Your task to perform on an android device: create a new album in the google photos Image 0: 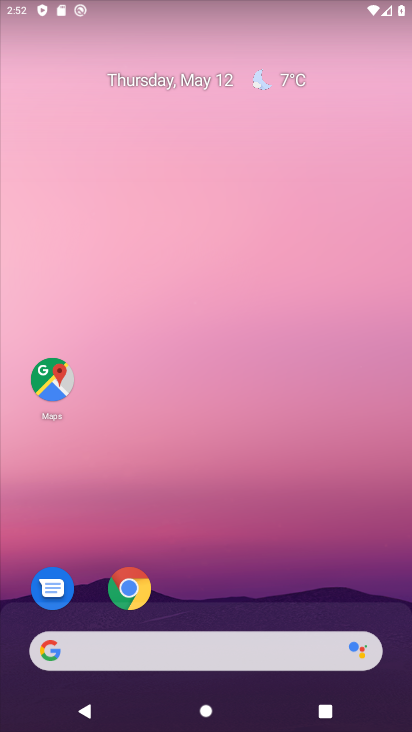
Step 0: drag from (277, 383) to (282, 72)
Your task to perform on an android device: create a new album in the google photos Image 1: 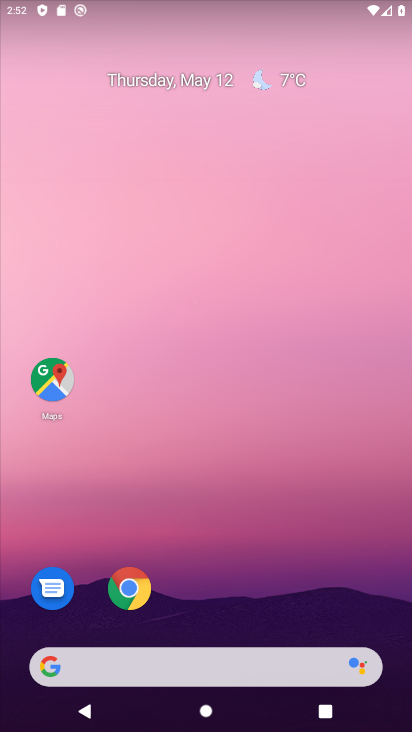
Step 1: drag from (280, 241) to (280, 143)
Your task to perform on an android device: create a new album in the google photos Image 2: 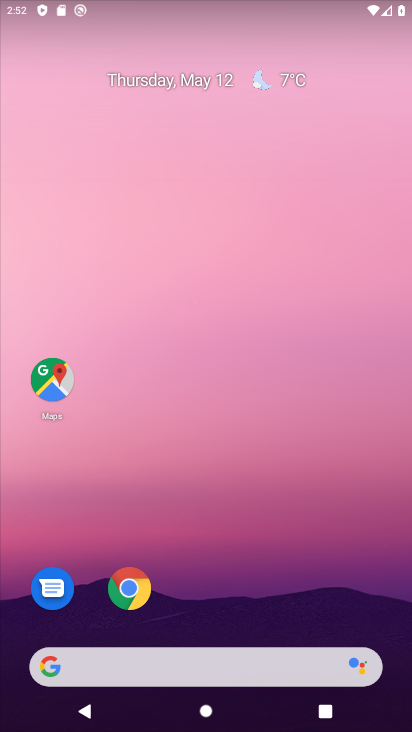
Step 2: drag from (246, 562) to (247, 60)
Your task to perform on an android device: create a new album in the google photos Image 3: 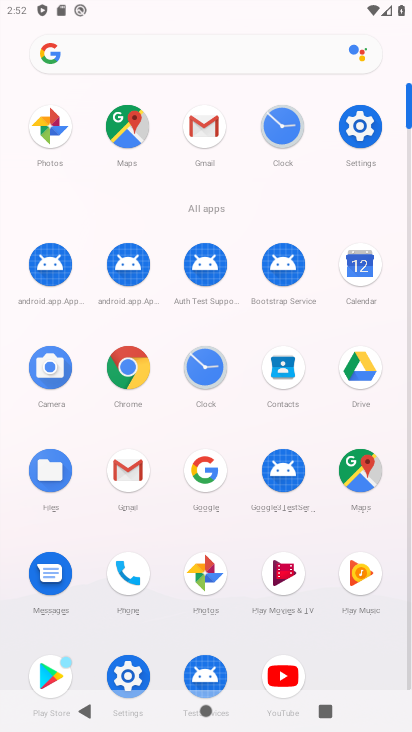
Step 3: click (208, 583)
Your task to perform on an android device: create a new album in the google photos Image 4: 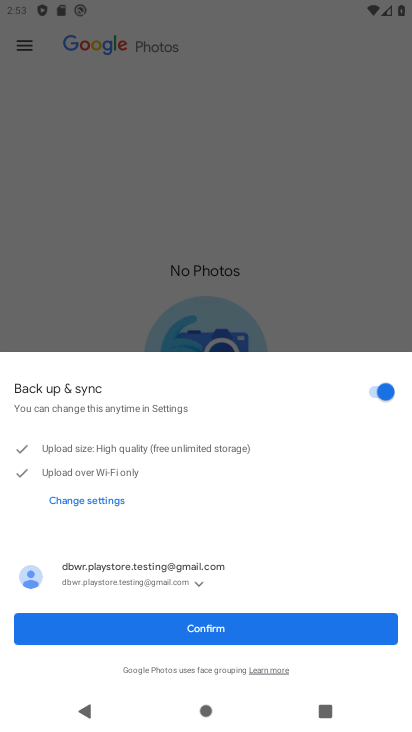
Step 4: click (283, 619)
Your task to perform on an android device: create a new album in the google photos Image 5: 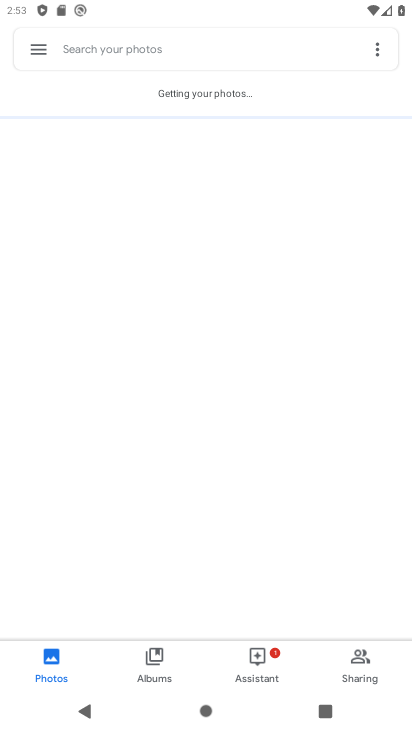
Step 5: click (154, 659)
Your task to perform on an android device: create a new album in the google photos Image 6: 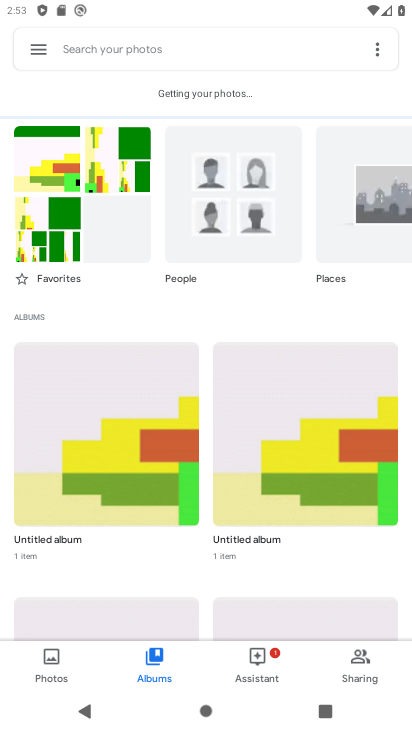
Step 6: click (376, 52)
Your task to perform on an android device: create a new album in the google photos Image 7: 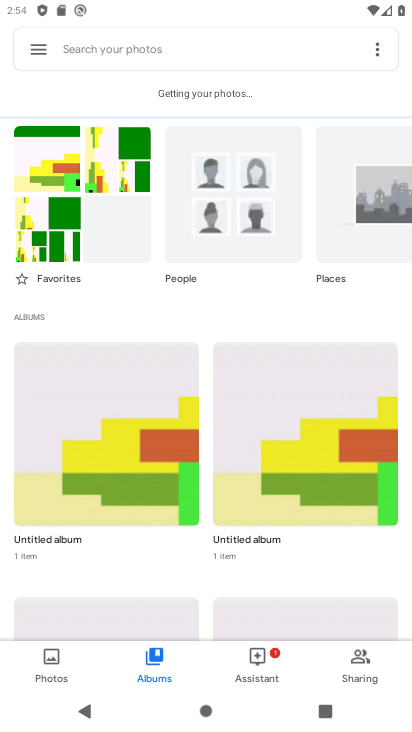
Step 7: drag from (152, 572) to (187, 668)
Your task to perform on an android device: create a new album in the google photos Image 8: 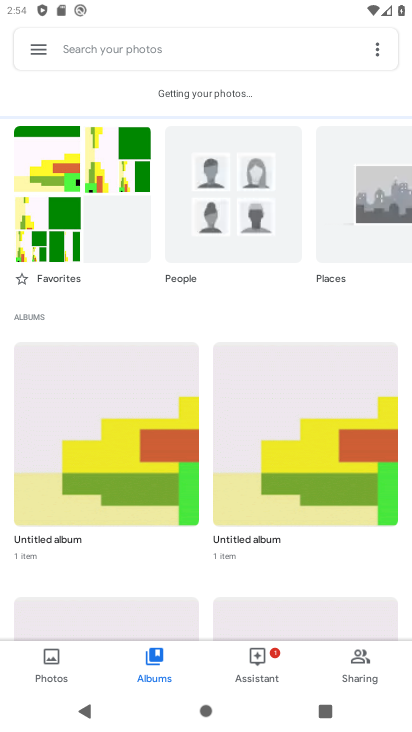
Step 8: drag from (319, 388) to (319, 532)
Your task to perform on an android device: create a new album in the google photos Image 9: 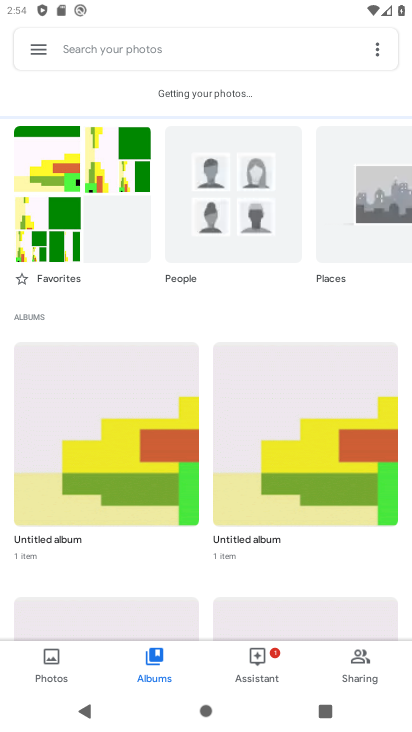
Step 9: click (365, 56)
Your task to perform on an android device: create a new album in the google photos Image 10: 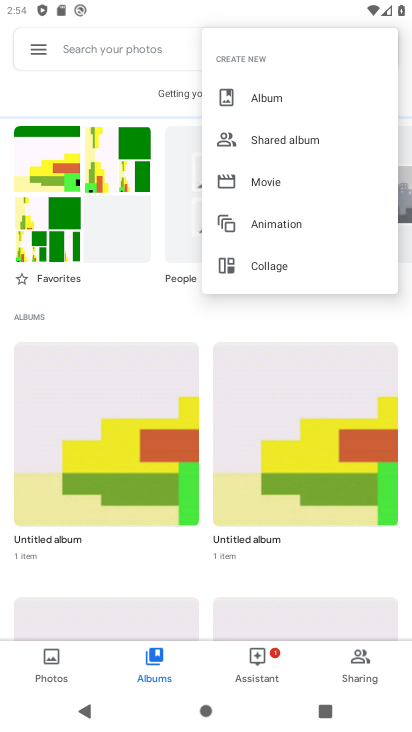
Step 10: click (338, 88)
Your task to perform on an android device: create a new album in the google photos Image 11: 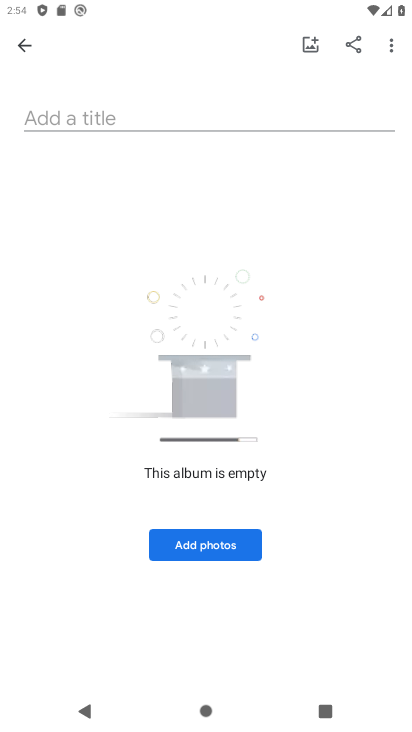
Step 11: click (103, 112)
Your task to perform on an android device: create a new album in the google photos Image 12: 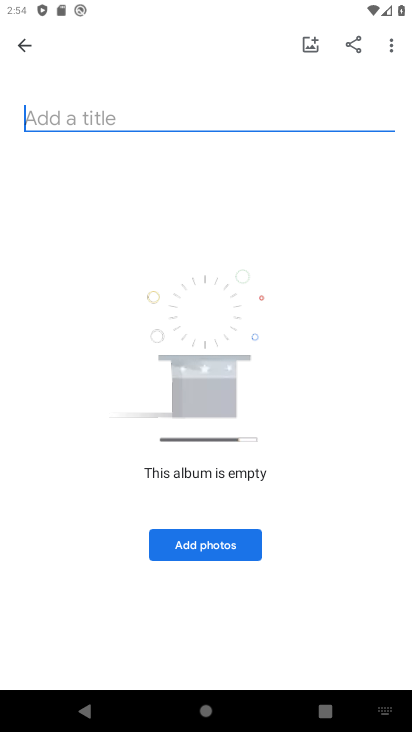
Step 12: type "ggvfgv"
Your task to perform on an android device: create a new album in the google photos Image 13: 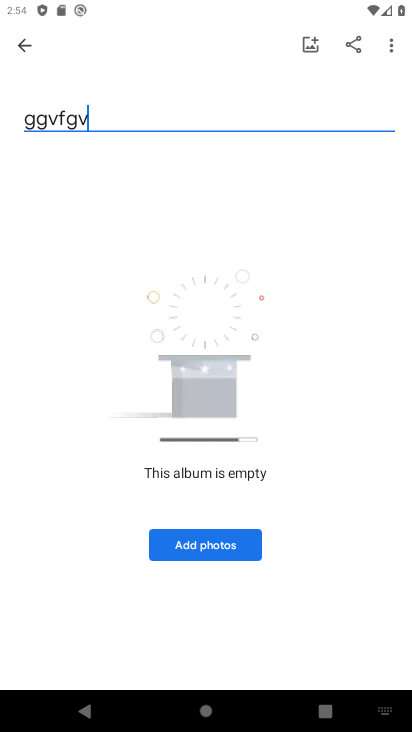
Step 13: click (220, 548)
Your task to perform on an android device: create a new album in the google photos Image 14: 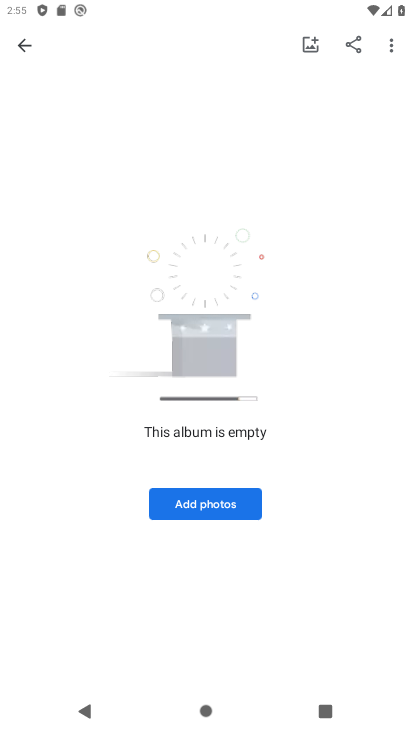
Step 14: click (204, 507)
Your task to perform on an android device: create a new album in the google photos Image 15: 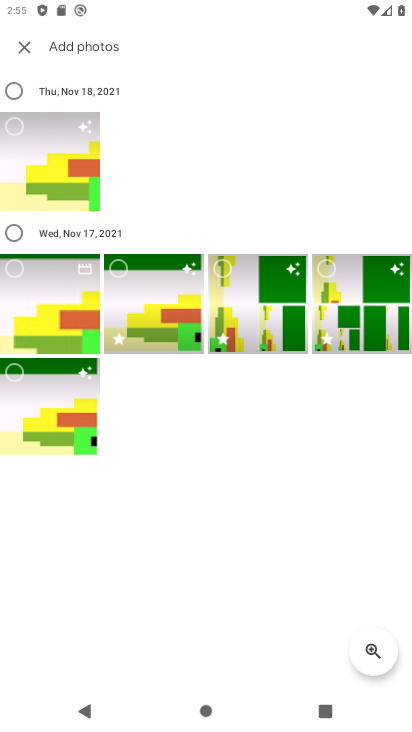
Step 15: click (56, 136)
Your task to perform on an android device: create a new album in the google photos Image 16: 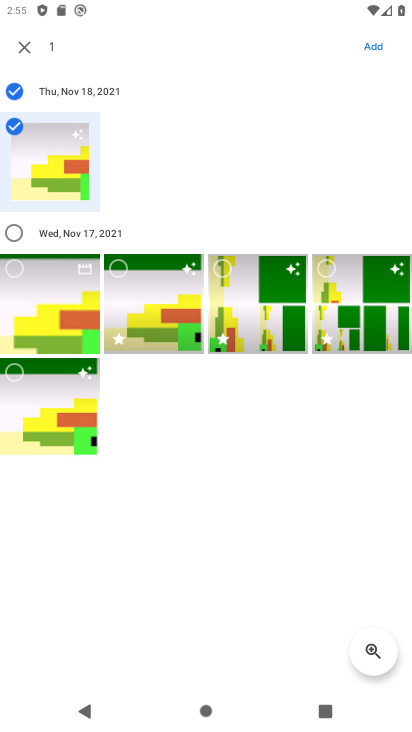
Step 16: click (28, 290)
Your task to perform on an android device: create a new album in the google photos Image 17: 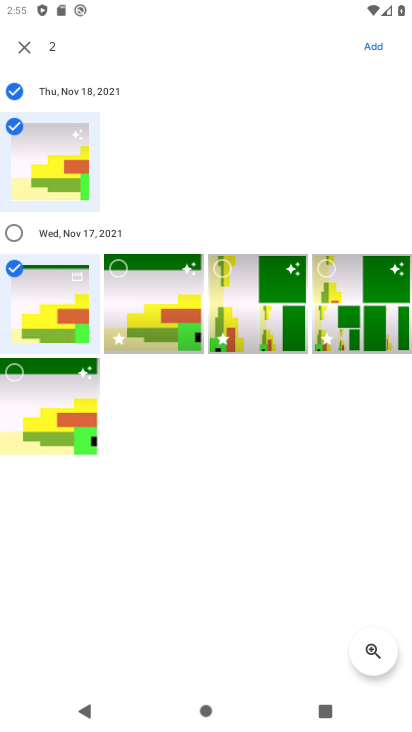
Step 17: click (372, 53)
Your task to perform on an android device: create a new album in the google photos Image 18: 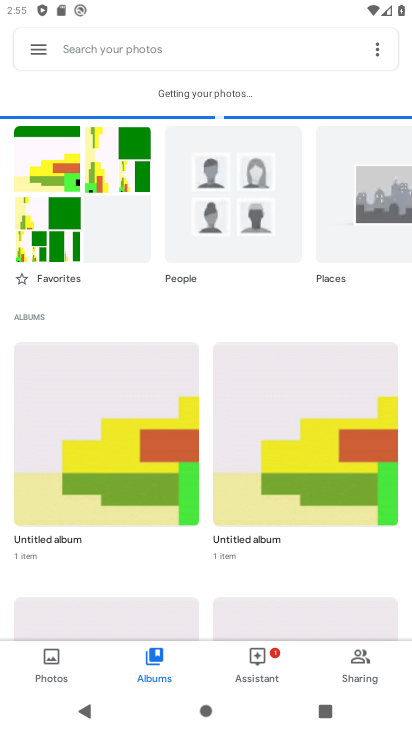
Step 18: task complete